Your task to perform on an android device: turn on data saver in the chrome app Image 0: 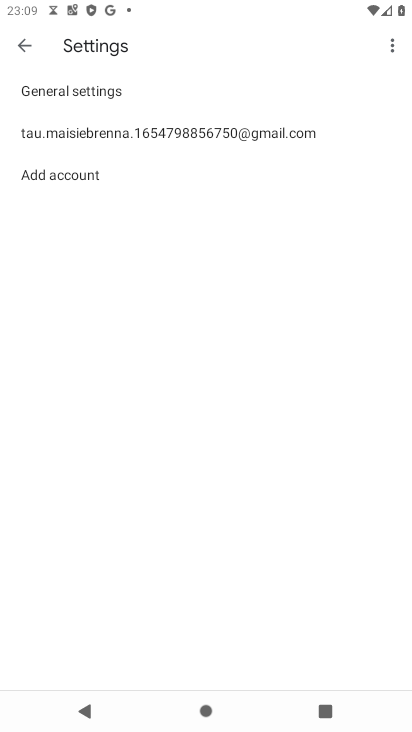
Step 0: press home button
Your task to perform on an android device: turn on data saver in the chrome app Image 1: 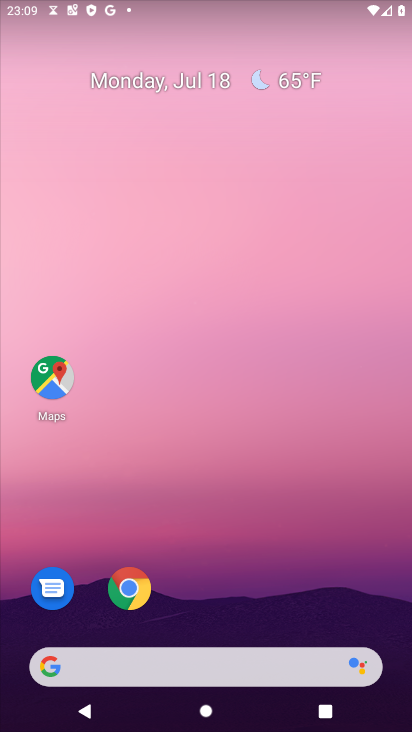
Step 1: click (127, 590)
Your task to perform on an android device: turn on data saver in the chrome app Image 2: 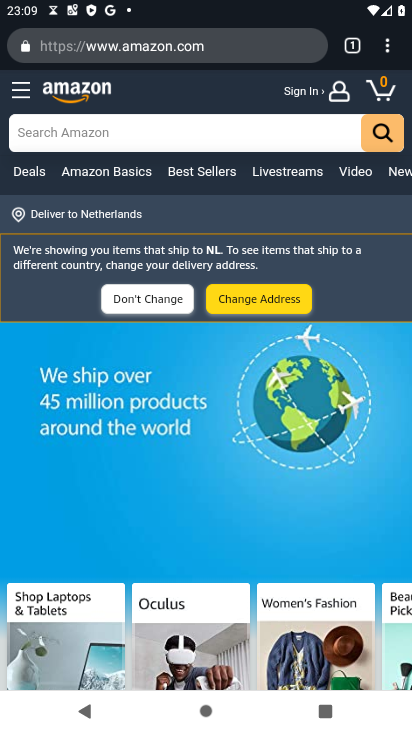
Step 2: click (388, 50)
Your task to perform on an android device: turn on data saver in the chrome app Image 3: 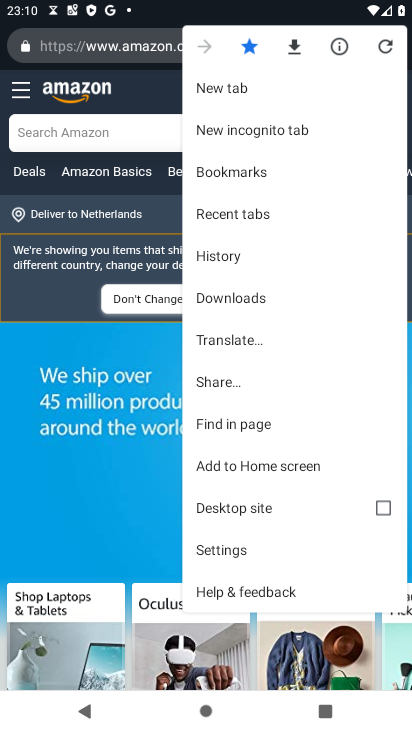
Step 3: click (227, 549)
Your task to perform on an android device: turn on data saver in the chrome app Image 4: 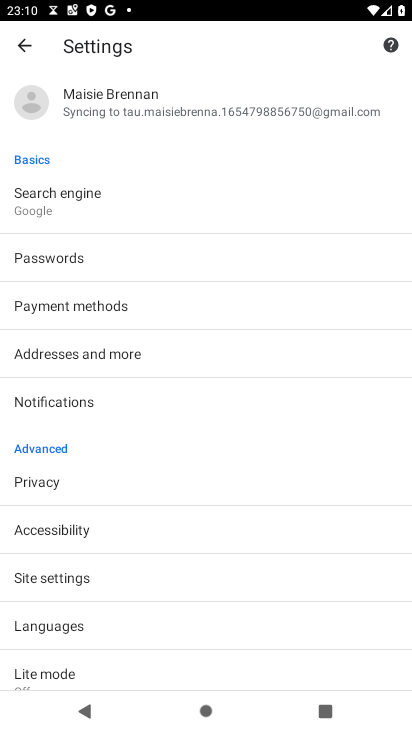
Step 4: drag from (64, 616) to (68, 494)
Your task to perform on an android device: turn on data saver in the chrome app Image 5: 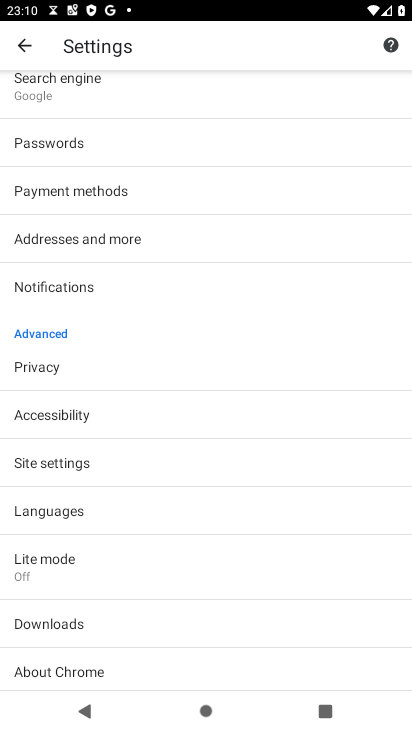
Step 5: click (65, 560)
Your task to perform on an android device: turn on data saver in the chrome app Image 6: 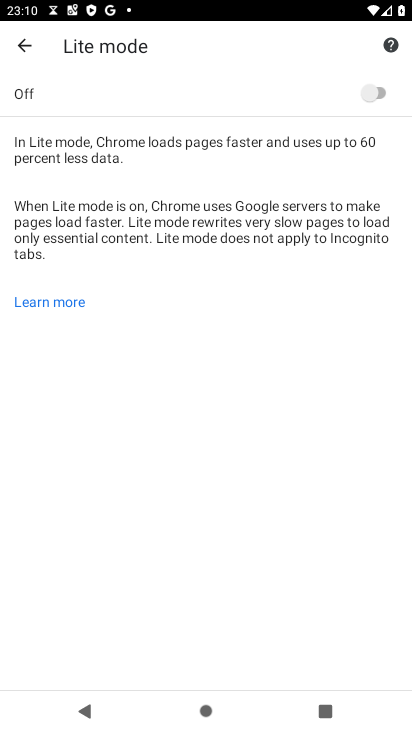
Step 6: click (374, 93)
Your task to perform on an android device: turn on data saver in the chrome app Image 7: 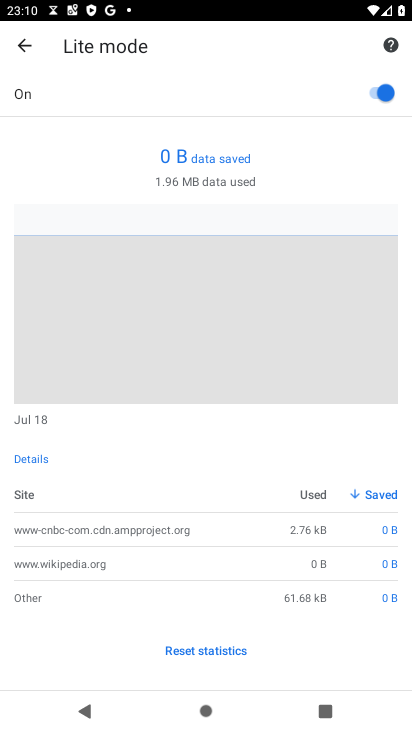
Step 7: task complete